Your task to perform on an android device: Add logitech g903 to the cart on amazon Image 0: 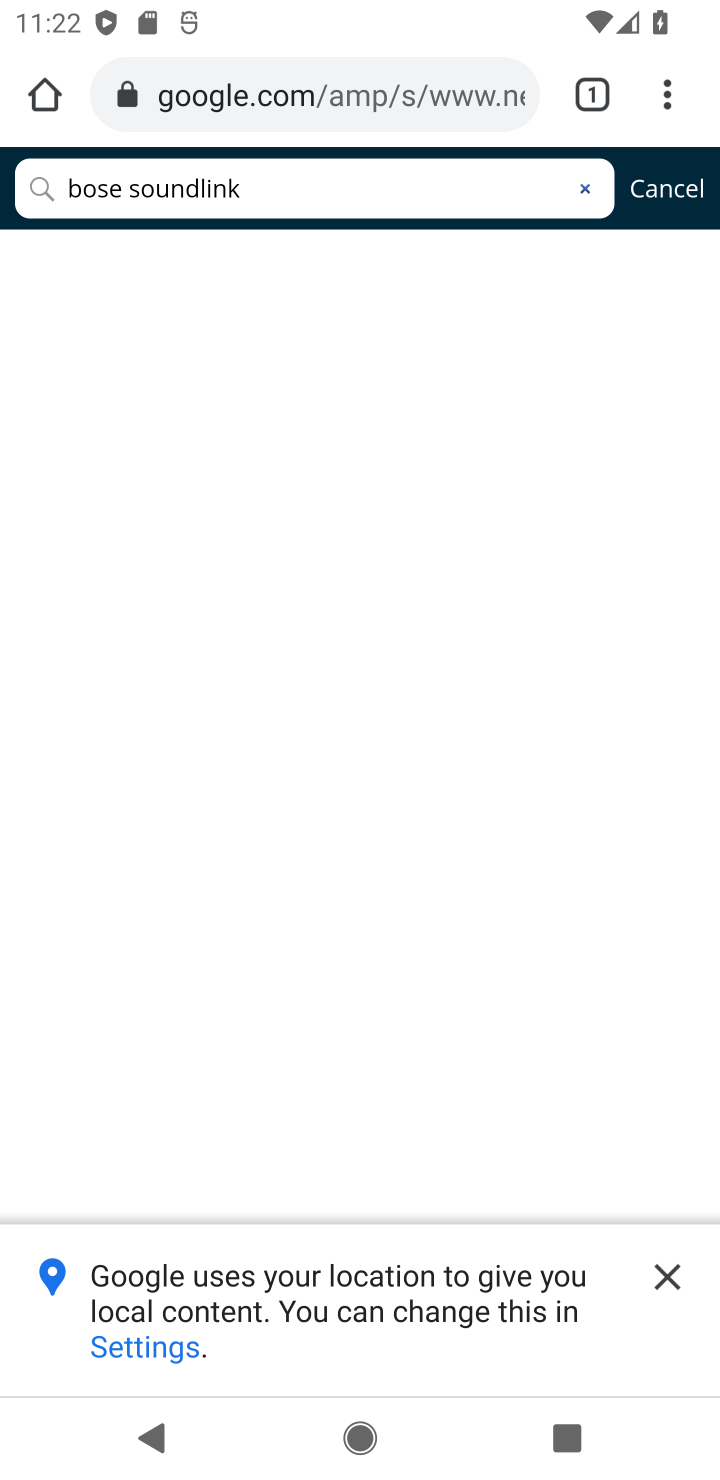
Step 0: task complete